Your task to perform on an android device: turn vacation reply on in the gmail app Image 0: 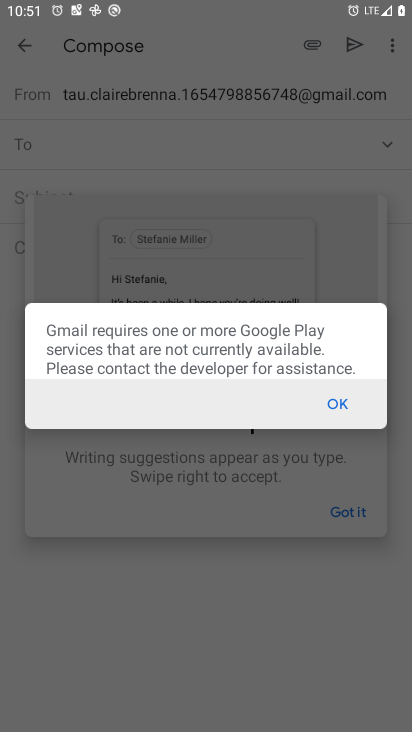
Step 0: press home button
Your task to perform on an android device: turn vacation reply on in the gmail app Image 1: 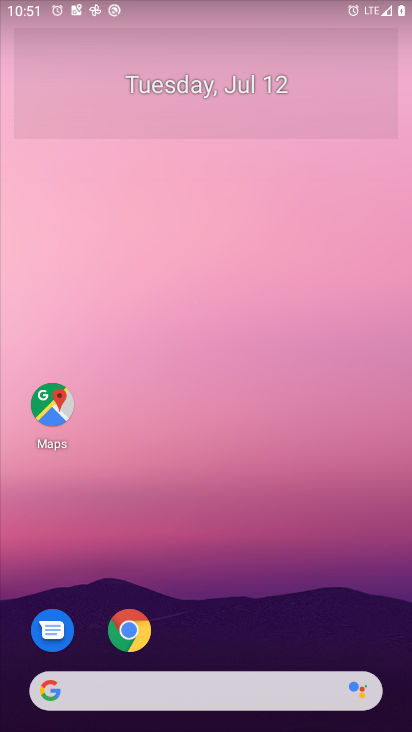
Step 1: drag from (303, 599) to (290, 78)
Your task to perform on an android device: turn vacation reply on in the gmail app Image 2: 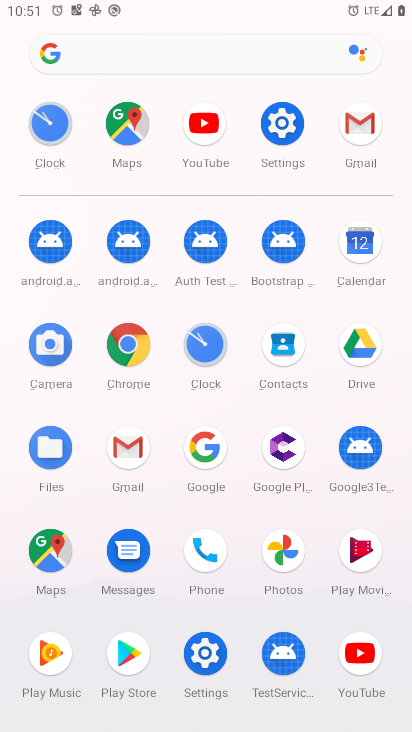
Step 2: click (362, 121)
Your task to perform on an android device: turn vacation reply on in the gmail app Image 3: 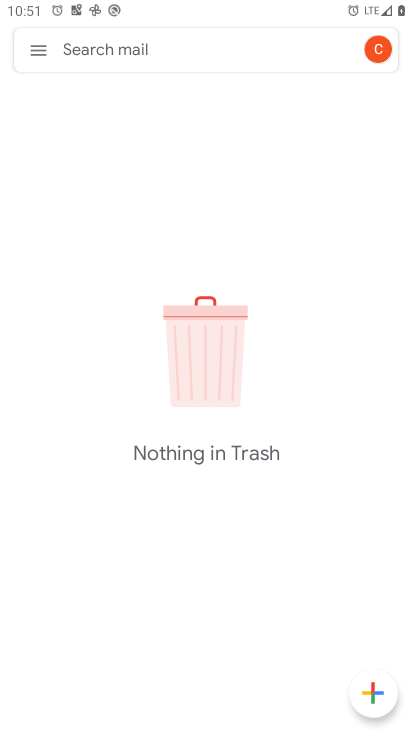
Step 3: click (41, 53)
Your task to perform on an android device: turn vacation reply on in the gmail app Image 4: 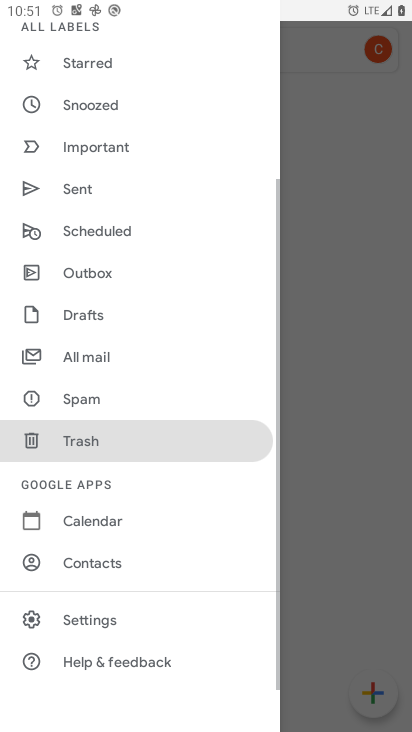
Step 4: click (102, 614)
Your task to perform on an android device: turn vacation reply on in the gmail app Image 5: 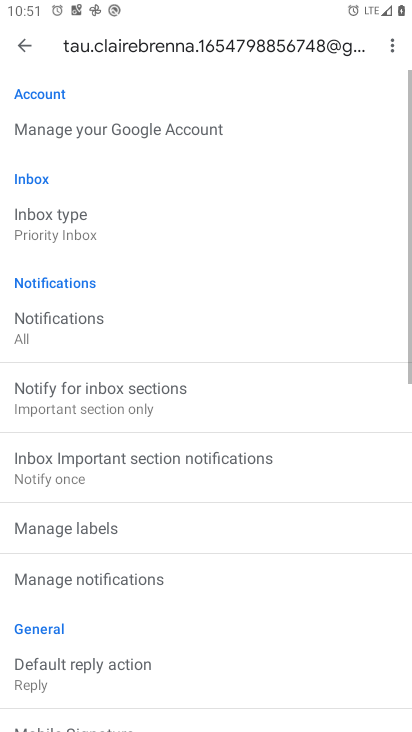
Step 5: drag from (288, 679) to (283, 155)
Your task to perform on an android device: turn vacation reply on in the gmail app Image 6: 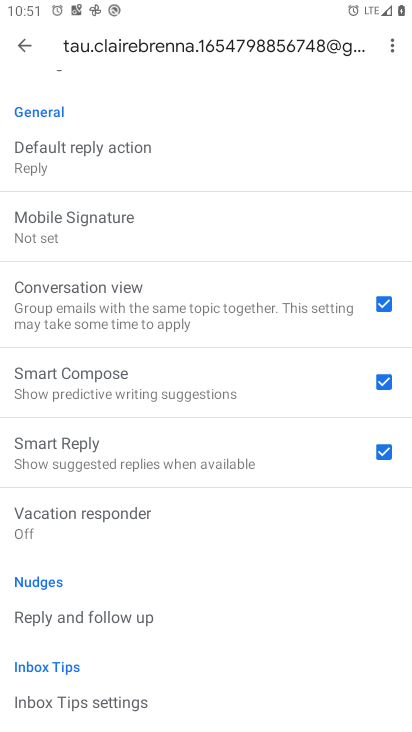
Step 6: drag from (231, 646) to (227, 104)
Your task to perform on an android device: turn vacation reply on in the gmail app Image 7: 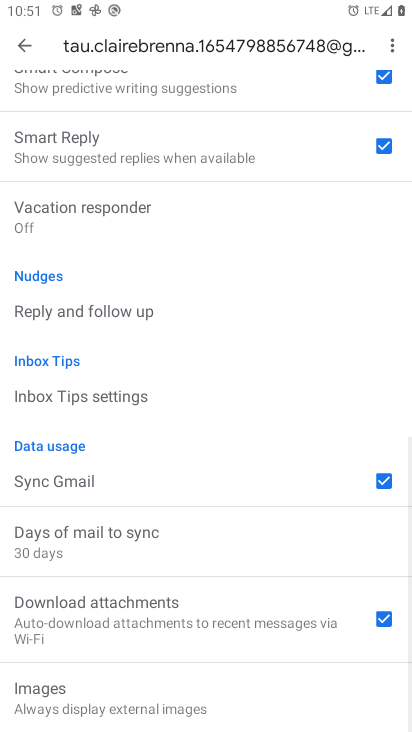
Step 7: drag from (222, 685) to (225, 224)
Your task to perform on an android device: turn vacation reply on in the gmail app Image 8: 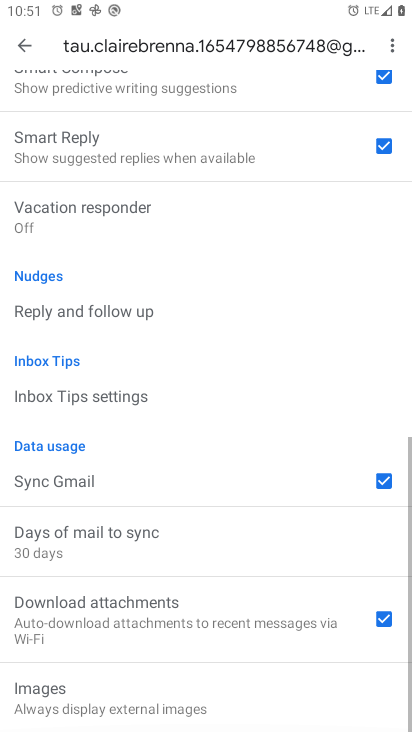
Step 8: drag from (197, 685) to (225, 281)
Your task to perform on an android device: turn vacation reply on in the gmail app Image 9: 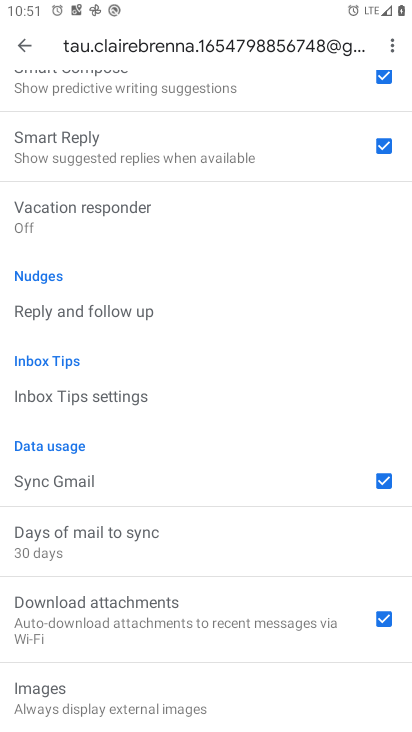
Step 9: click (120, 216)
Your task to perform on an android device: turn vacation reply on in the gmail app Image 10: 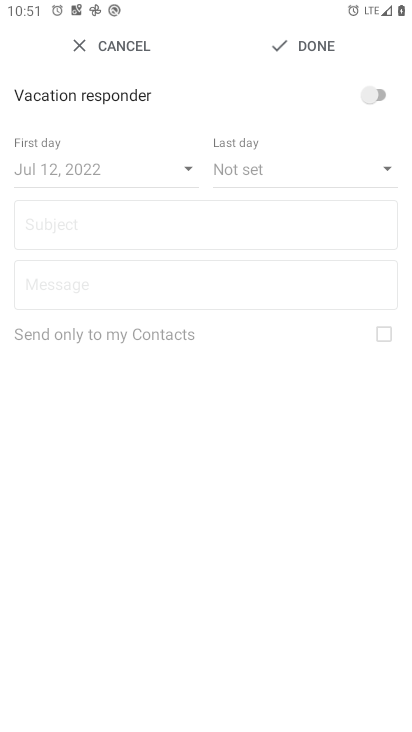
Step 10: click (371, 88)
Your task to perform on an android device: turn vacation reply on in the gmail app Image 11: 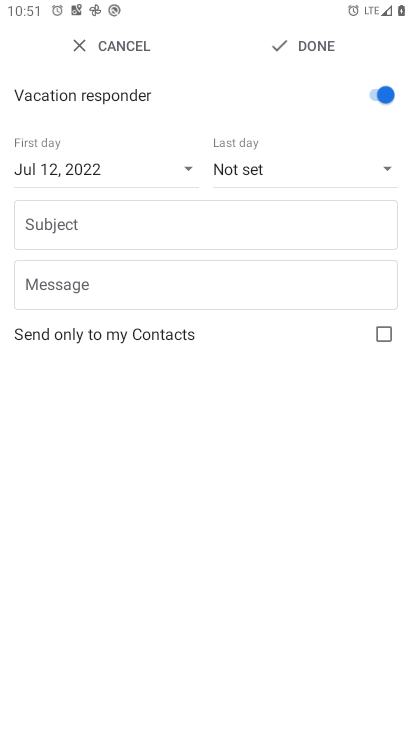
Step 11: click (304, 41)
Your task to perform on an android device: turn vacation reply on in the gmail app Image 12: 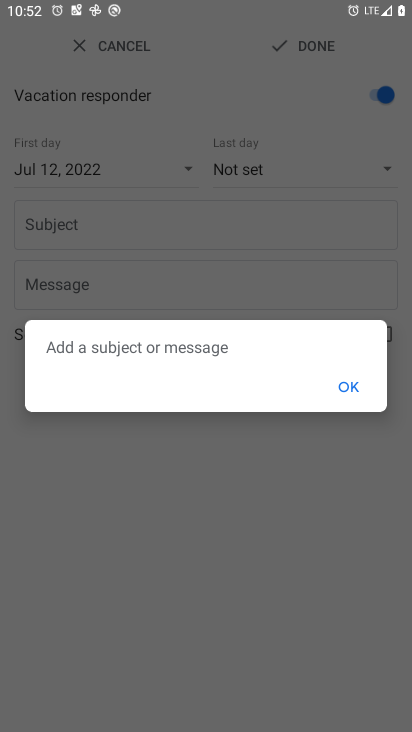
Step 12: click (351, 388)
Your task to perform on an android device: turn vacation reply on in the gmail app Image 13: 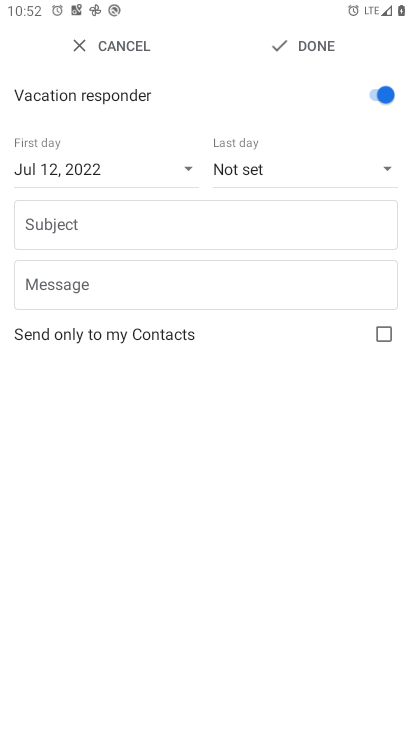
Step 13: task complete